Your task to perform on an android device: turn on airplane mode Image 0: 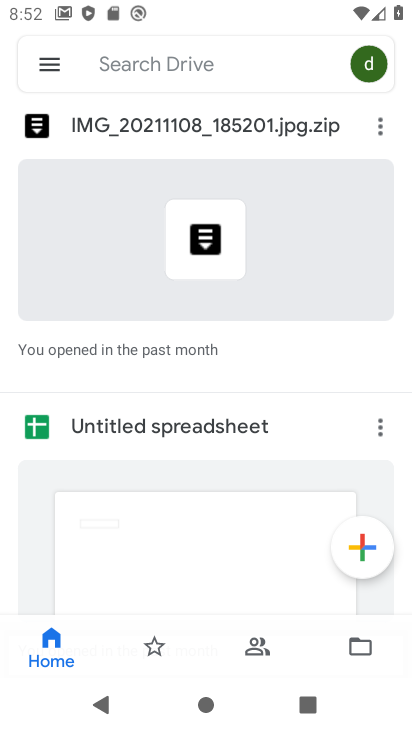
Step 0: press home button
Your task to perform on an android device: turn on airplane mode Image 1: 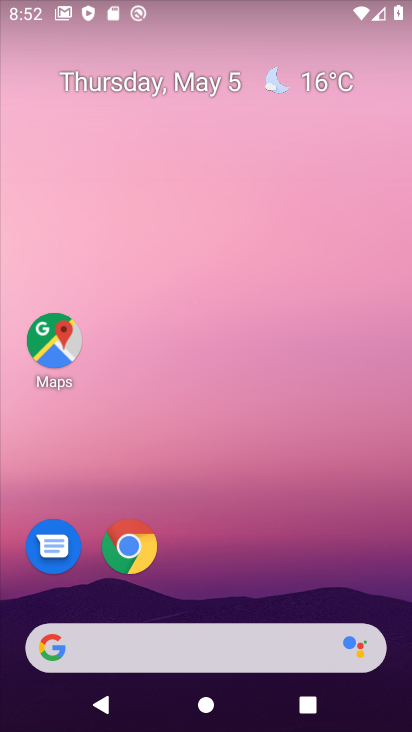
Step 1: drag from (251, 599) to (320, 34)
Your task to perform on an android device: turn on airplane mode Image 2: 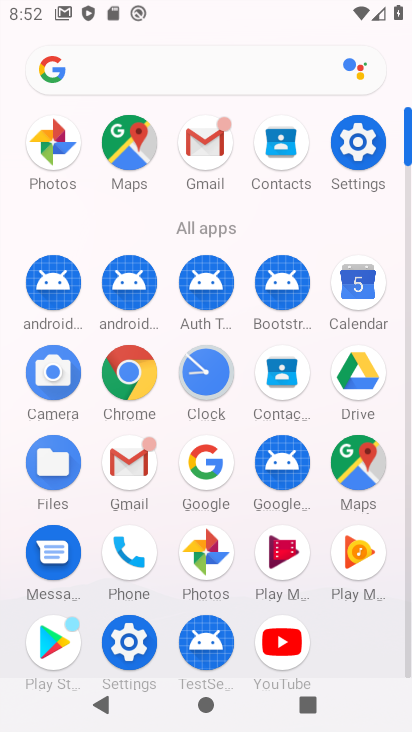
Step 2: click (346, 148)
Your task to perform on an android device: turn on airplane mode Image 3: 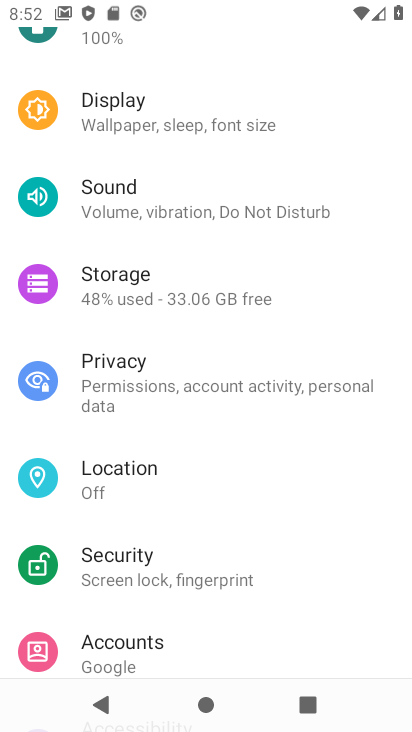
Step 3: drag from (248, 145) to (258, 490)
Your task to perform on an android device: turn on airplane mode Image 4: 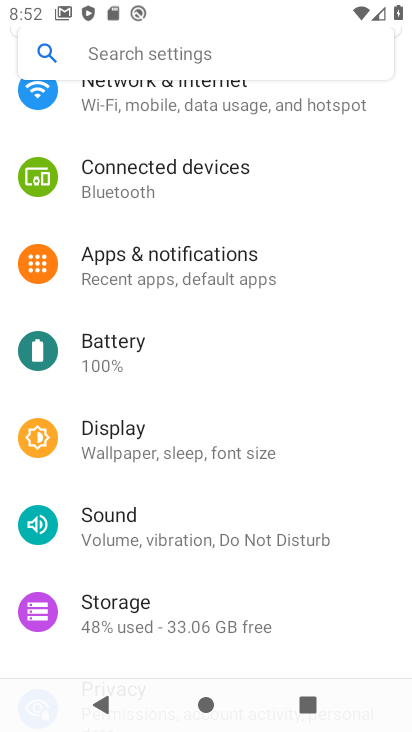
Step 4: drag from (211, 215) to (172, 457)
Your task to perform on an android device: turn on airplane mode Image 5: 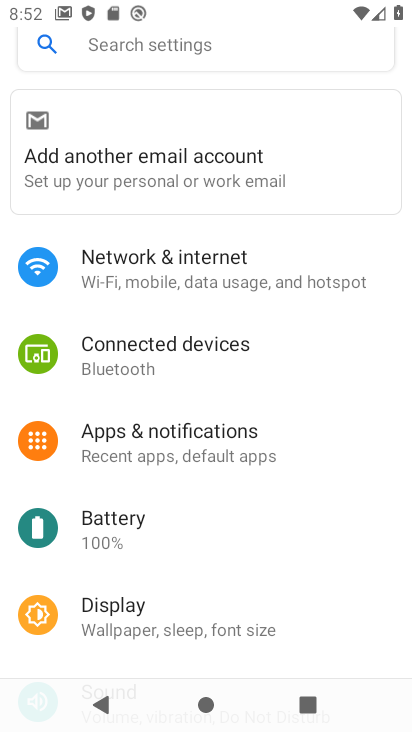
Step 5: click (197, 266)
Your task to perform on an android device: turn on airplane mode Image 6: 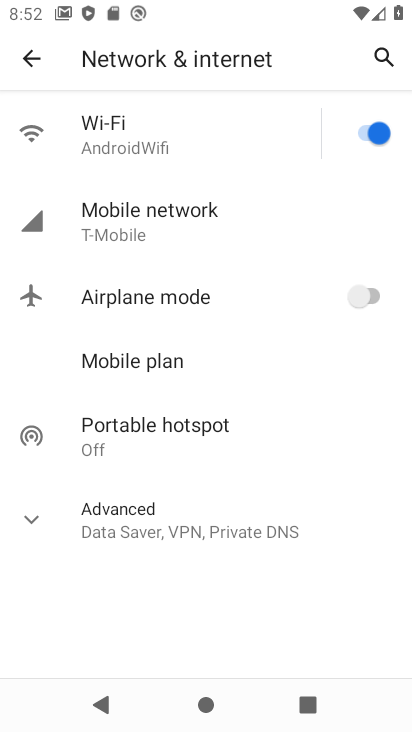
Step 6: click (353, 298)
Your task to perform on an android device: turn on airplane mode Image 7: 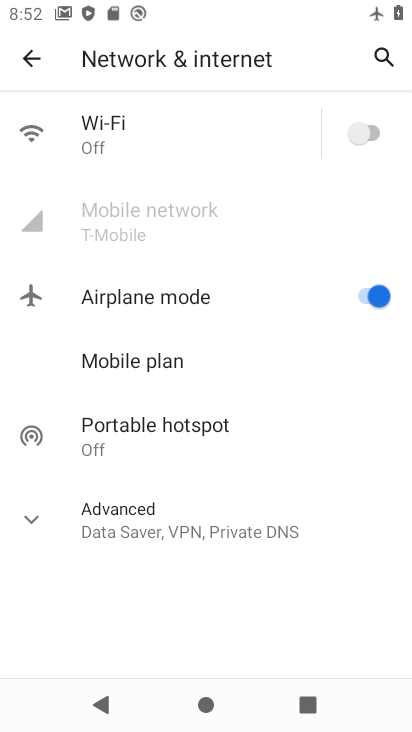
Step 7: task complete